Your task to perform on an android device: Check the news Image 0: 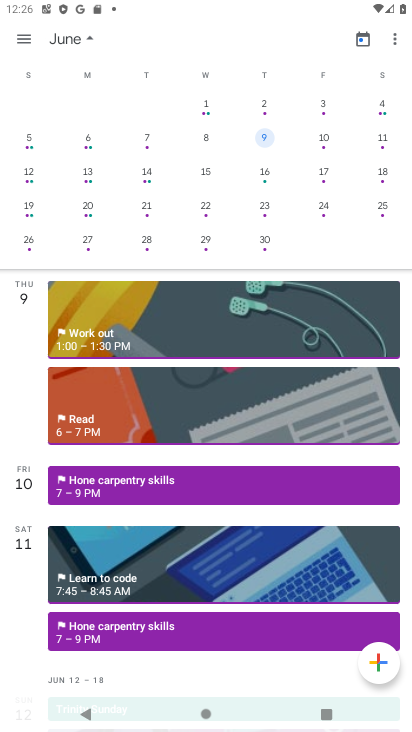
Step 0: press home button
Your task to perform on an android device: Check the news Image 1: 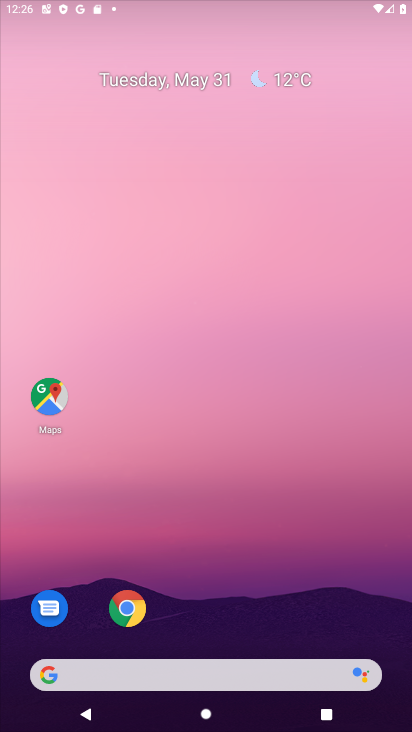
Step 1: drag from (199, 623) to (213, 7)
Your task to perform on an android device: Check the news Image 2: 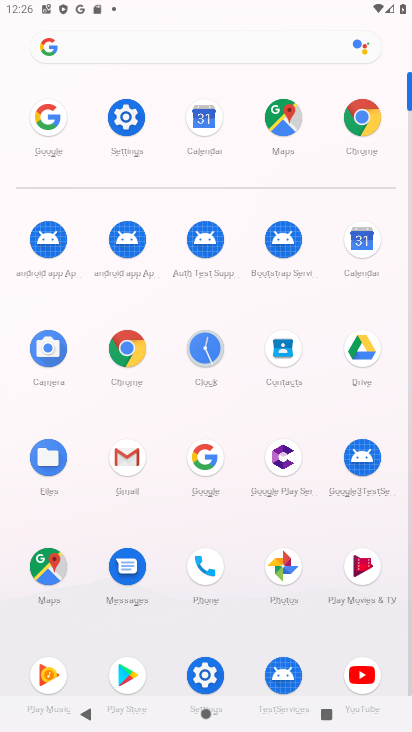
Step 2: click (45, 123)
Your task to perform on an android device: Check the news Image 3: 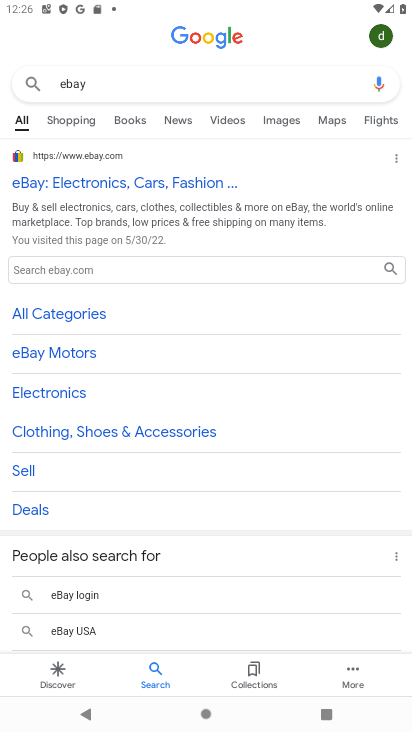
Step 3: click (167, 79)
Your task to perform on an android device: Check the news Image 4: 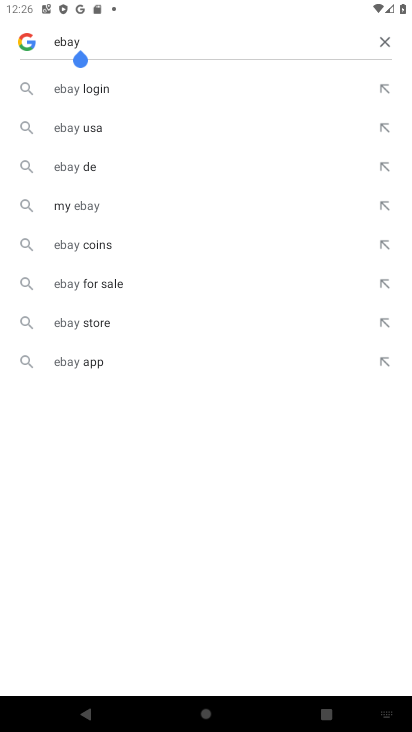
Step 4: click (383, 43)
Your task to perform on an android device: Check the news Image 5: 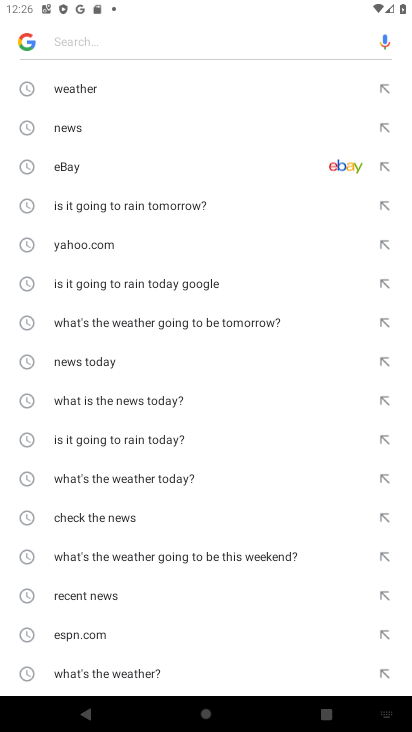
Step 5: click (138, 120)
Your task to perform on an android device: Check the news Image 6: 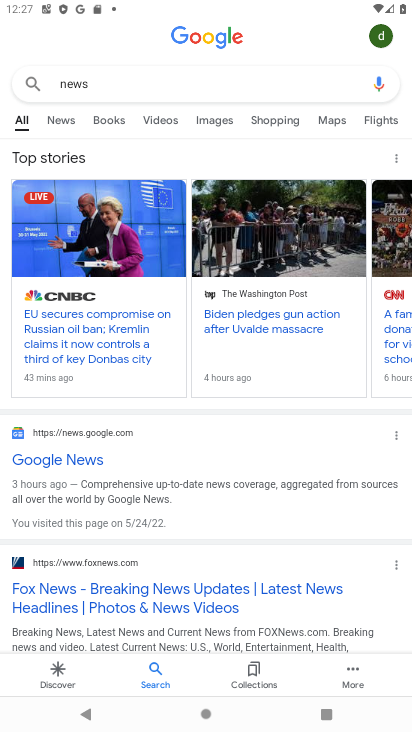
Step 6: task complete